Your task to perform on an android device: toggle translation in the chrome app Image 0: 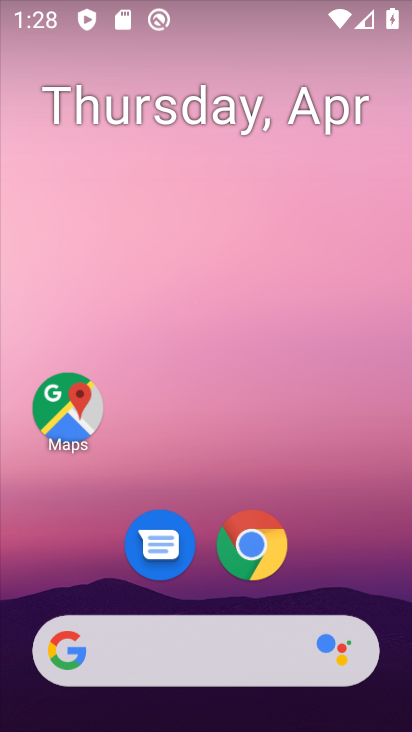
Step 0: drag from (317, 490) to (348, 112)
Your task to perform on an android device: toggle translation in the chrome app Image 1: 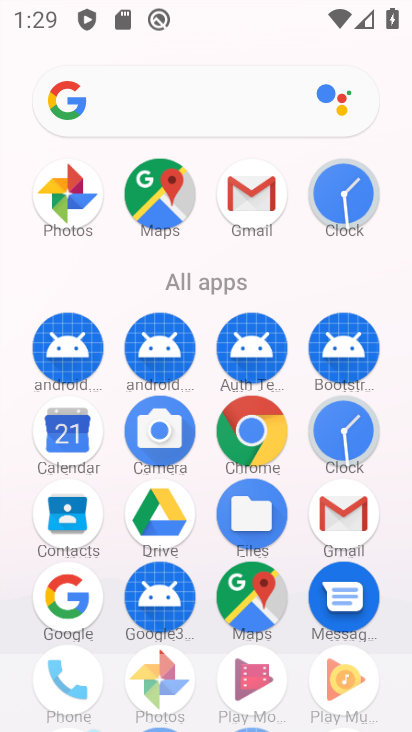
Step 1: click (242, 431)
Your task to perform on an android device: toggle translation in the chrome app Image 2: 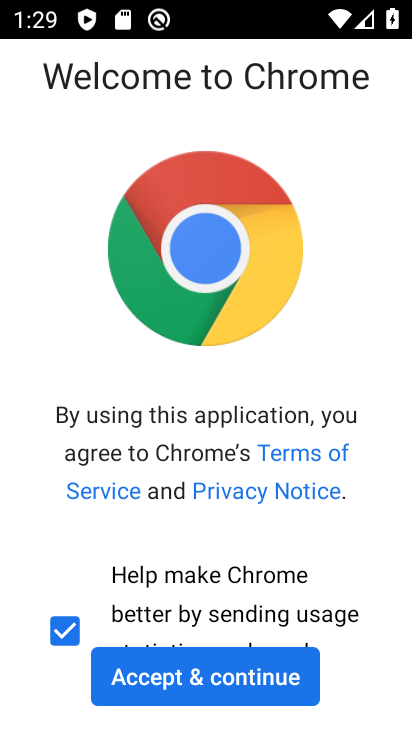
Step 2: click (234, 700)
Your task to perform on an android device: toggle translation in the chrome app Image 3: 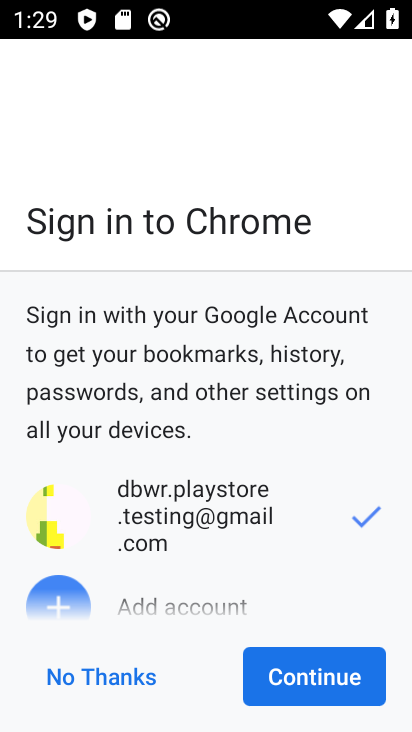
Step 3: click (341, 688)
Your task to perform on an android device: toggle translation in the chrome app Image 4: 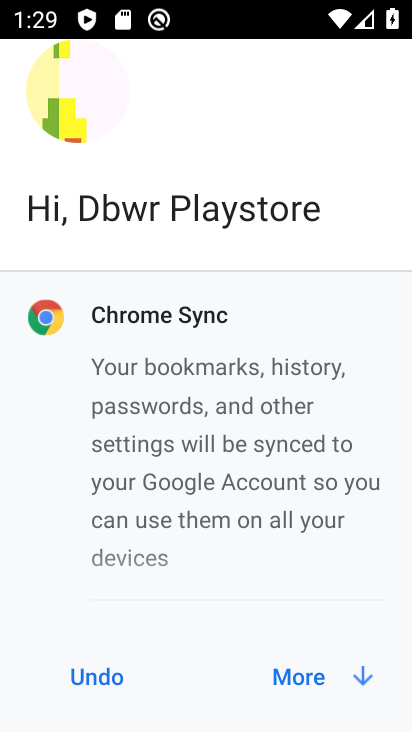
Step 4: click (314, 679)
Your task to perform on an android device: toggle translation in the chrome app Image 5: 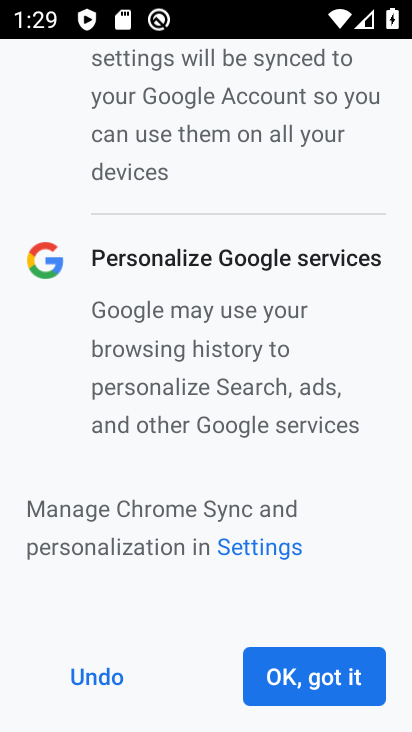
Step 5: click (314, 679)
Your task to perform on an android device: toggle translation in the chrome app Image 6: 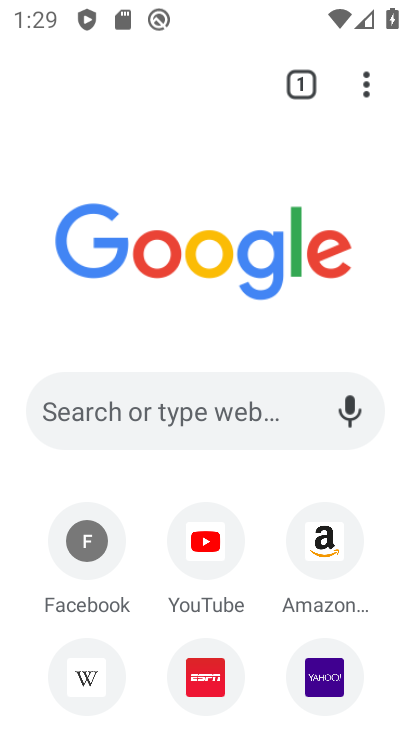
Step 6: click (363, 72)
Your task to perform on an android device: toggle translation in the chrome app Image 7: 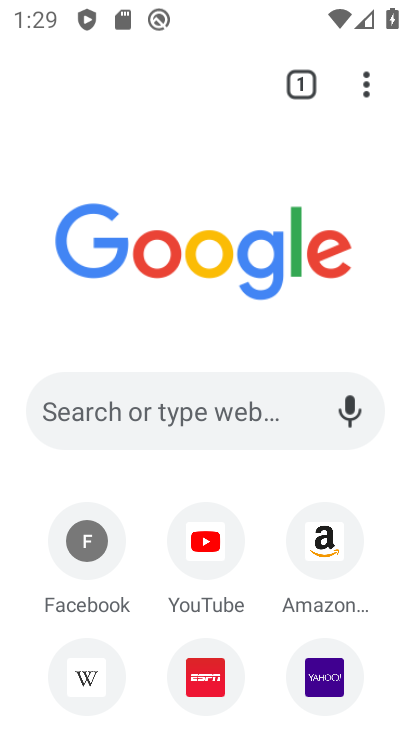
Step 7: click (366, 81)
Your task to perform on an android device: toggle translation in the chrome app Image 8: 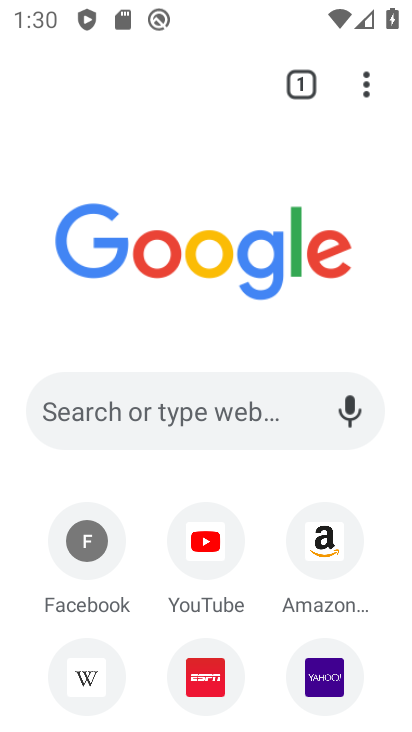
Step 8: click (370, 90)
Your task to perform on an android device: toggle translation in the chrome app Image 9: 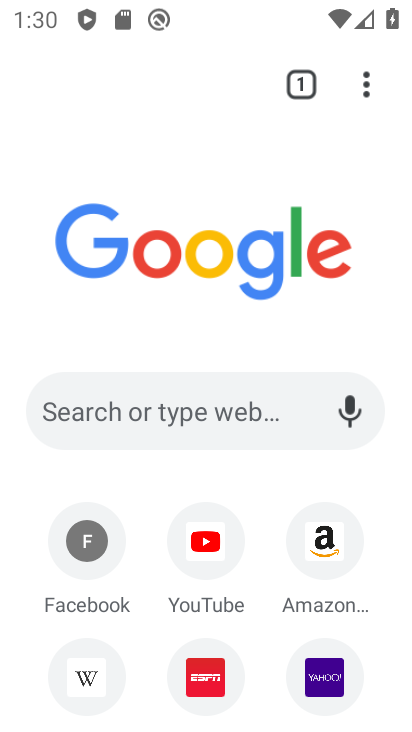
Step 9: click (368, 85)
Your task to perform on an android device: toggle translation in the chrome app Image 10: 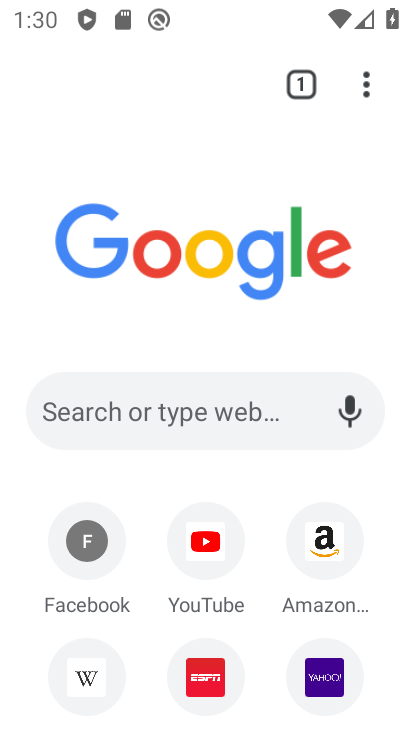
Step 10: click (368, 86)
Your task to perform on an android device: toggle translation in the chrome app Image 11: 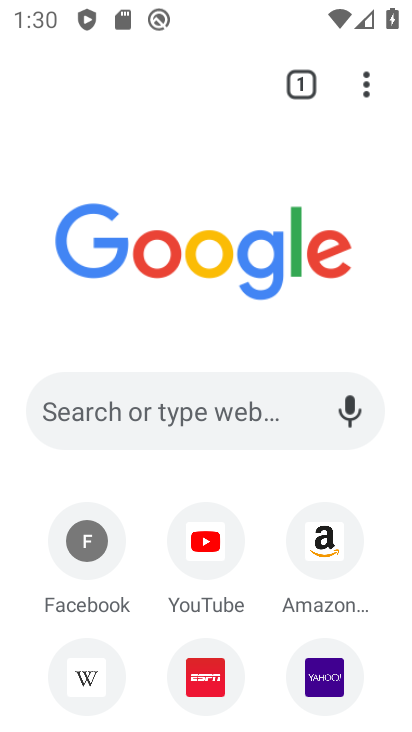
Step 11: click (365, 82)
Your task to perform on an android device: toggle translation in the chrome app Image 12: 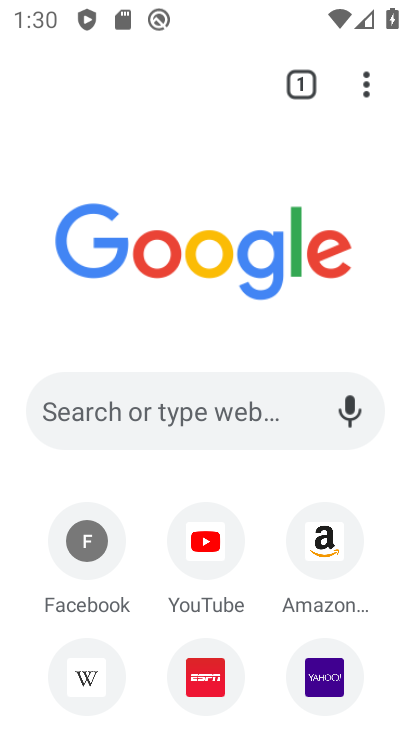
Step 12: click (372, 82)
Your task to perform on an android device: toggle translation in the chrome app Image 13: 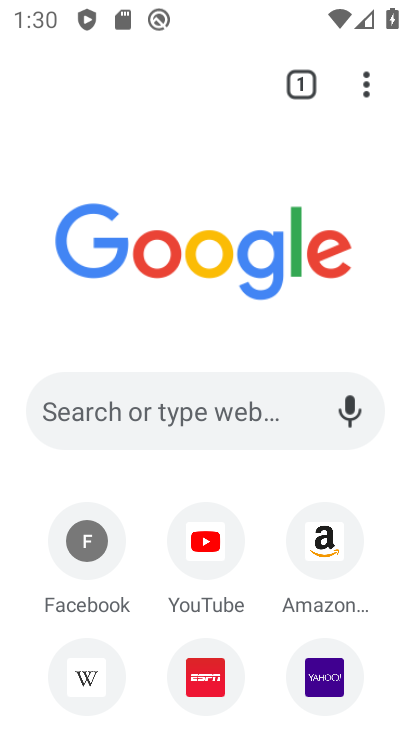
Step 13: click (360, 72)
Your task to perform on an android device: toggle translation in the chrome app Image 14: 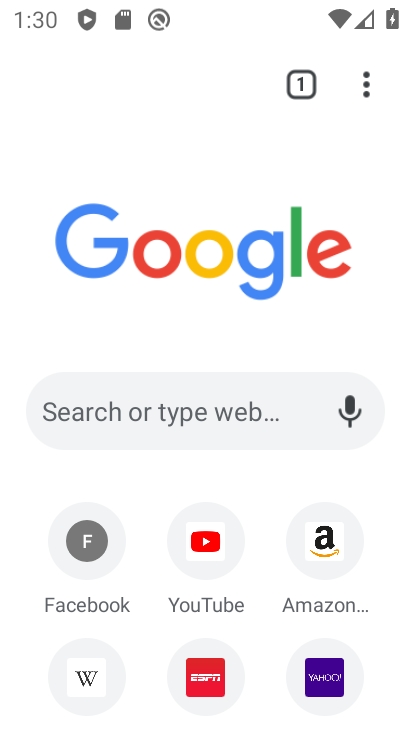
Step 14: click (371, 93)
Your task to perform on an android device: toggle translation in the chrome app Image 15: 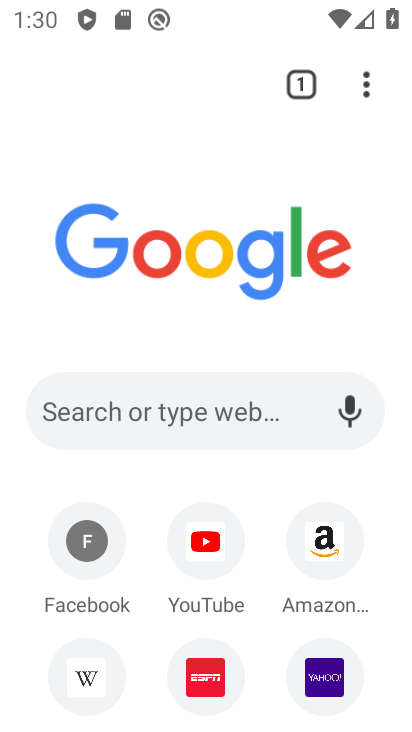
Step 15: click (371, 95)
Your task to perform on an android device: toggle translation in the chrome app Image 16: 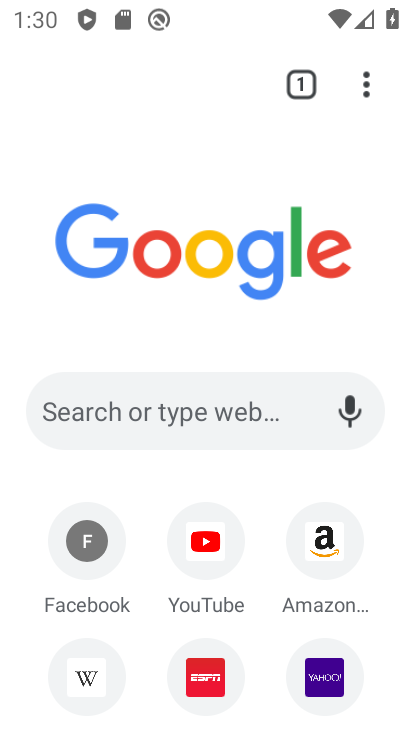
Step 16: click (375, 80)
Your task to perform on an android device: toggle translation in the chrome app Image 17: 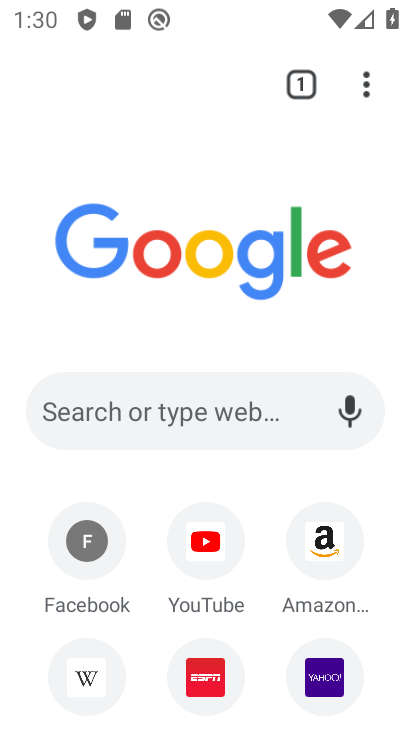
Step 17: click (372, 82)
Your task to perform on an android device: toggle translation in the chrome app Image 18: 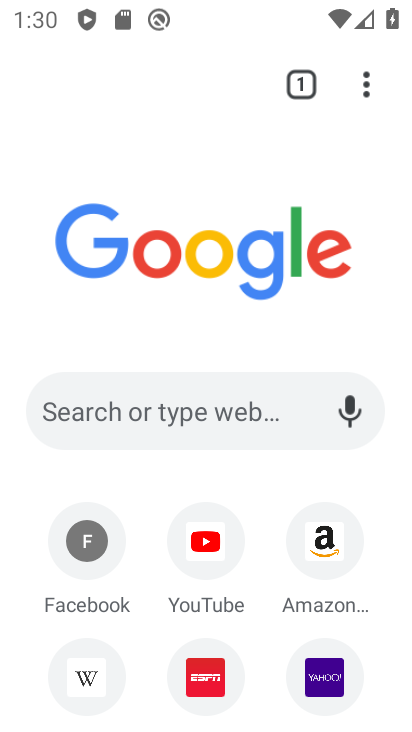
Step 18: click (353, 87)
Your task to perform on an android device: toggle translation in the chrome app Image 19: 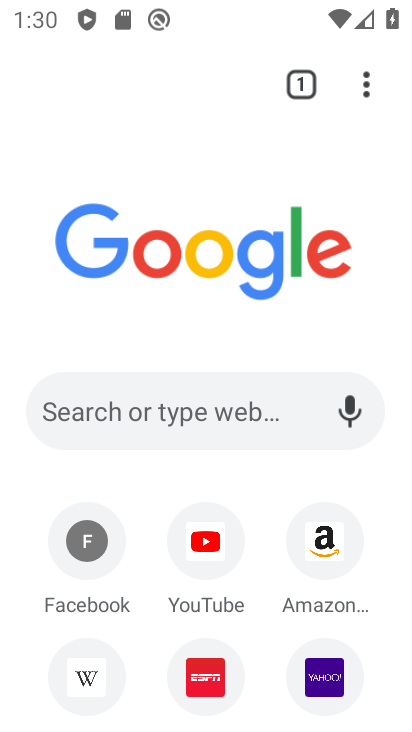
Step 19: click (367, 89)
Your task to perform on an android device: toggle translation in the chrome app Image 20: 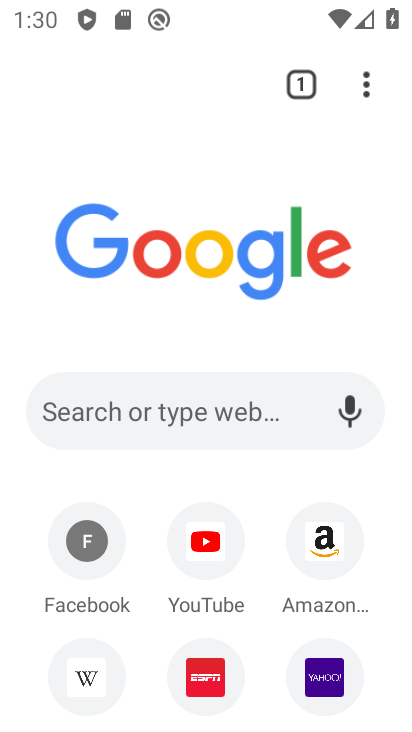
Step 20: click (367, 89)
Your task to perform on an android device: toggle translation in the chrome app Image 21: 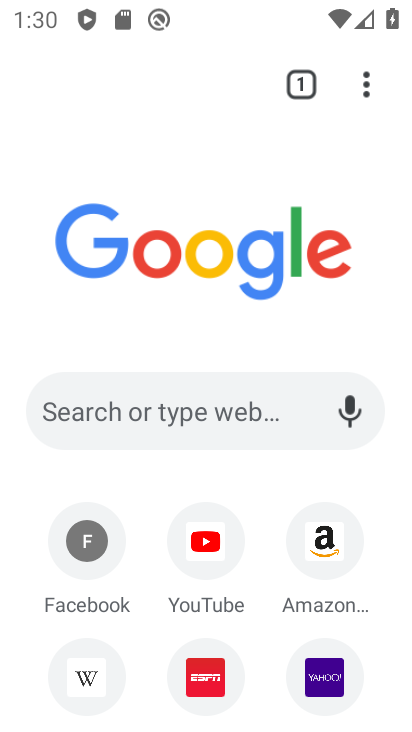
Step 21: click (369, 90)
Your task to perform on an android device: toggle translation in the chrome app Image 22: 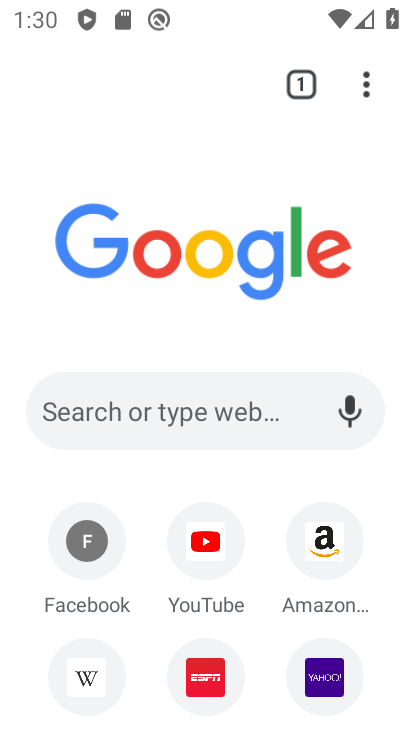
Step 22: click (369, 75)
Your task to perform on an android device: toggle translation in the chrome app Image 23: 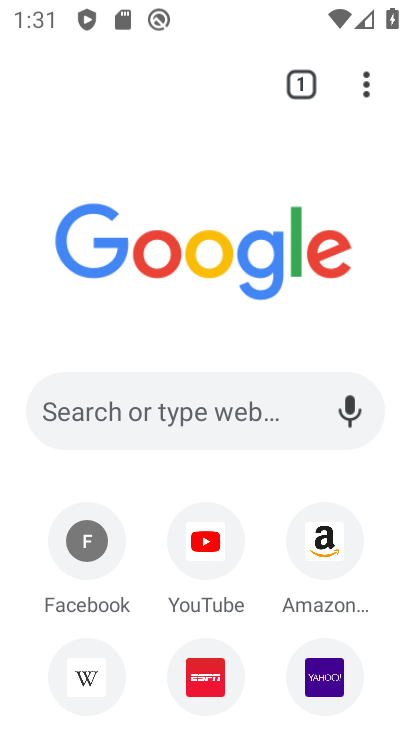
Step 23: click (367, 84)
Your task to perform on an android device: toggle translation in the chrome app Image 24: 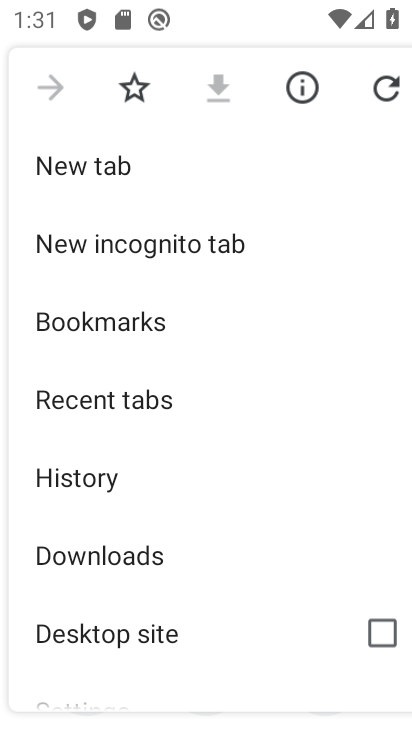
Step 24: drag from (291, 590) to (149, 173)
Your task to perform on an android device: toggle translation in the chrome app Image 25: 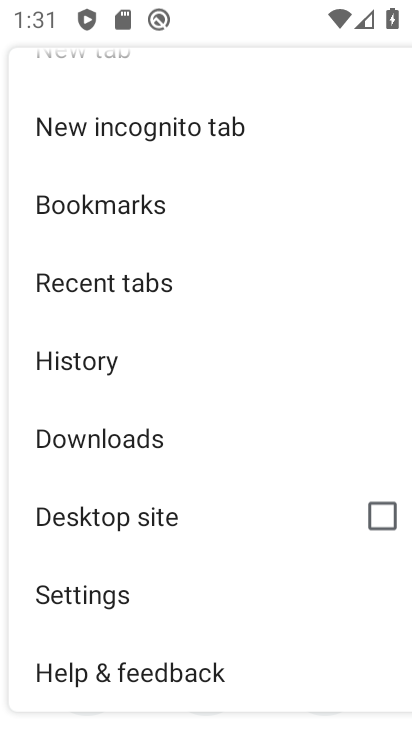
Step 25: click (92, 588)
Your task to perform on an android device: toggle translation in the chrome app Image 26: 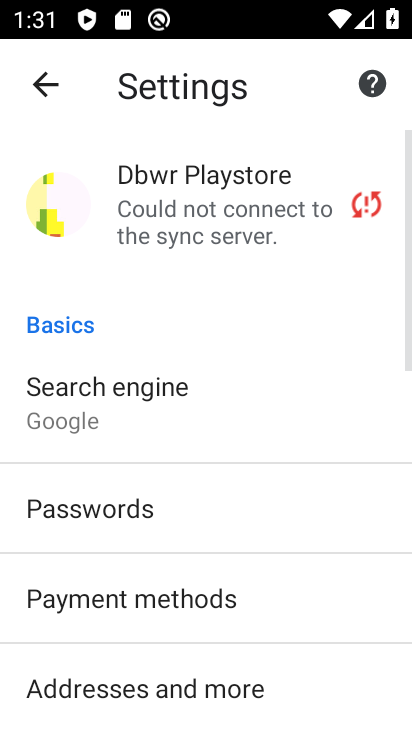
Step 26: drag from (295, 611) to (84, 178)
Your task to perform on an android device: toggle translation in the chrome app Image 27: 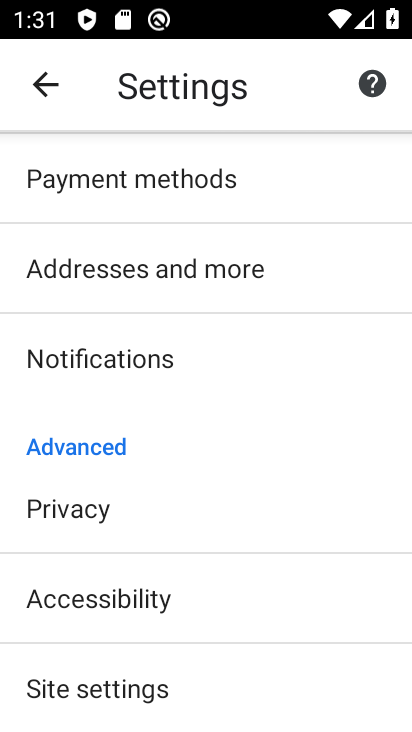
Step 27: drag from (185, 659) to (103, 188)
Your task to perform on an android device: toggle translation in the chrome app Image 28: 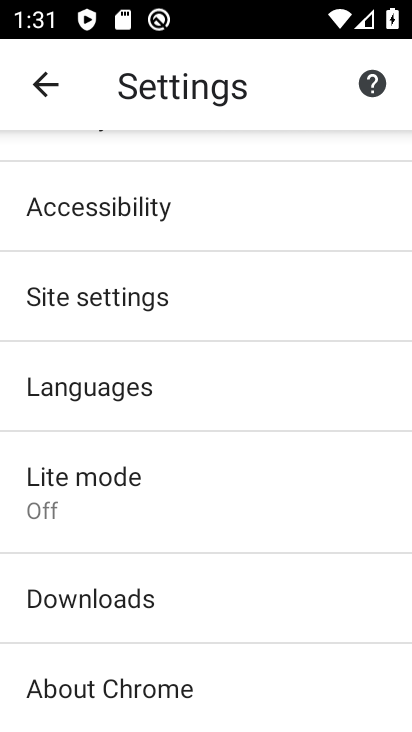
Step 28: click (148, 406)
Your task to perform on an android device: toggle translation in the chrome app Image 29: 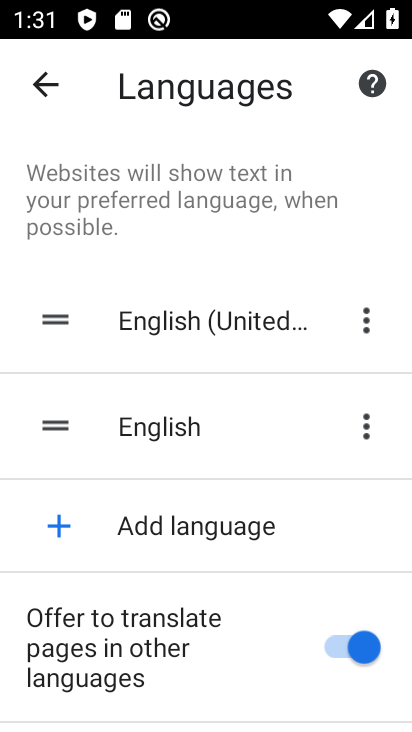
Step 29: click (346, 655)
Your task to perform on an android device: toggle translation in the chrome app Image 30: 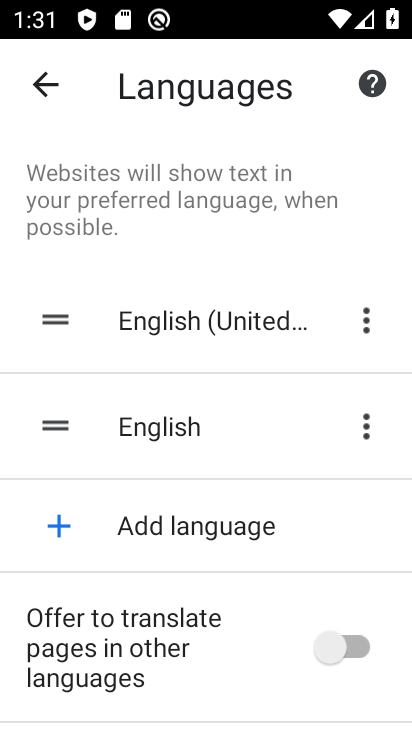
Step 30: task complete